Your task to perform on an android device: turn on notifications settings in the gmail app Image 0: 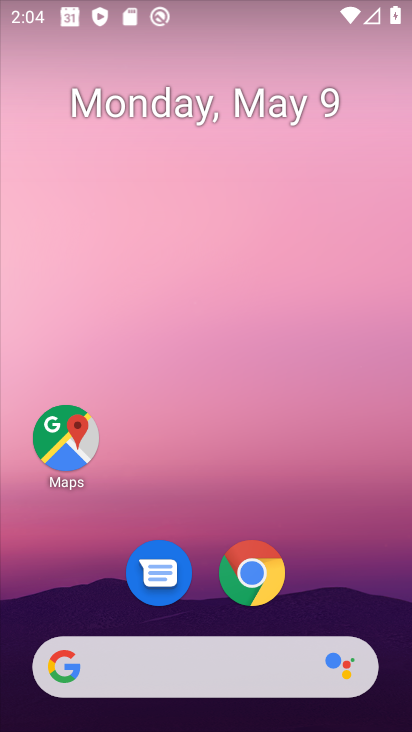
Step 0: drag from (321, 456) to (183, 0)
Your task to perform on an android device: turn on notifications settings in the gmail app Image 1: 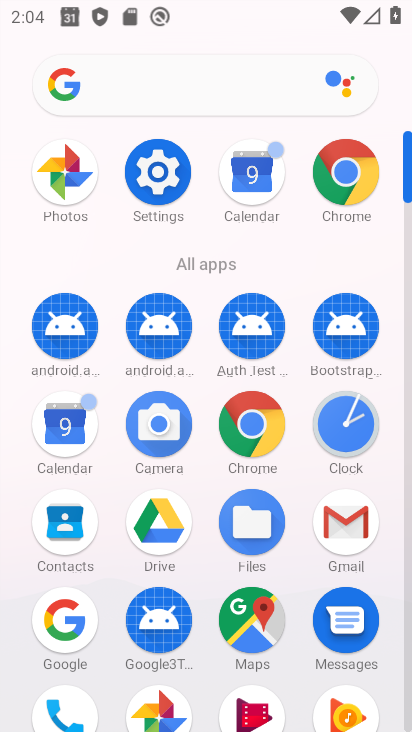
Step 1: click (341, 523)
Your task to perform on an android device: turn on notifications settings in the gmail app Image 2: 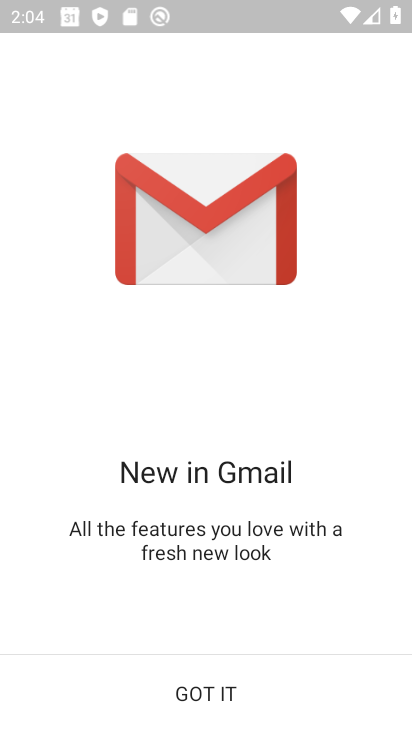
Step 2: click (221, 693)
Your task to perform on an android device: turn on notifications settings in the gmail app Image 3: 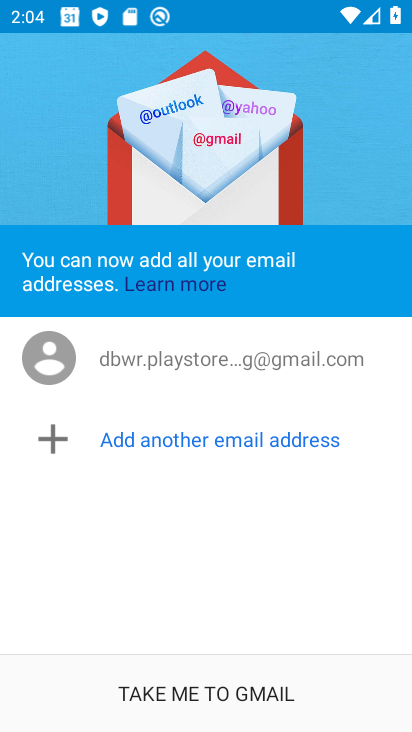
Step 3: click (235, 686)
Your task to perform on an android device: turn on notifications settings in the gmail app Image 4: 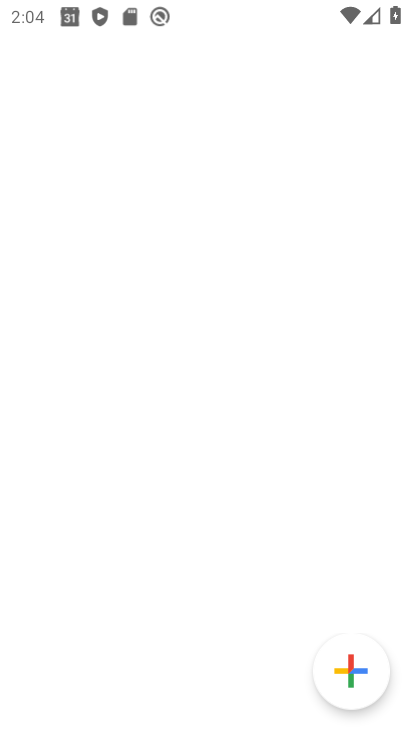
Step 4: click (235, 686)
Your task to perform on an android device: turn on notifications settings in the gmail app Image 5: 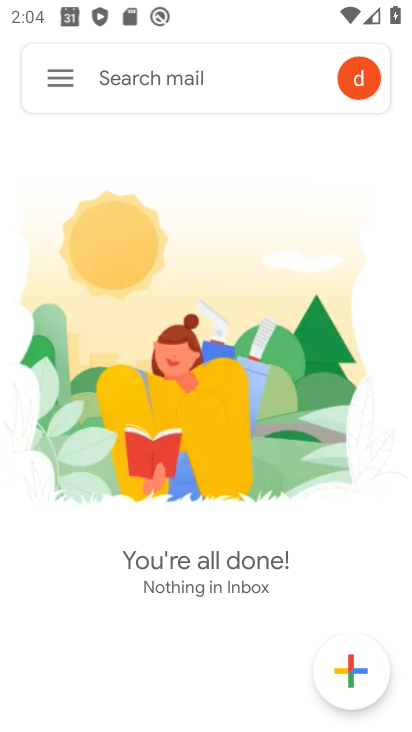
Step 5: click (54, 83)
Your task to perform on an android device: turn on notifications settings in the gmail app Image 6: 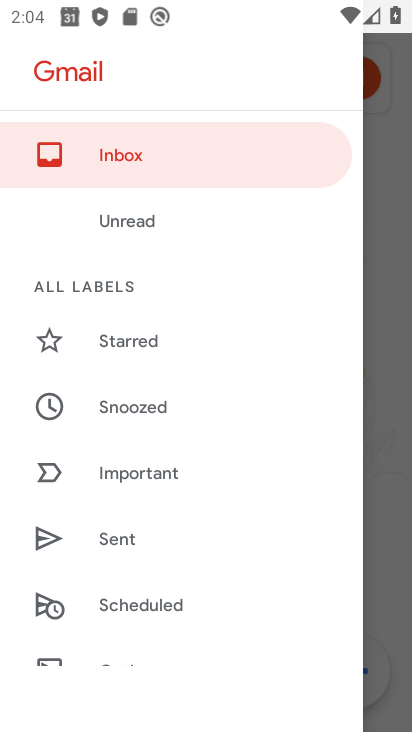
Step 6: drag from (165, 540) to (147, 168)
Your task to perform on an android device: turn on notifications settings in the gmail app Image 7: 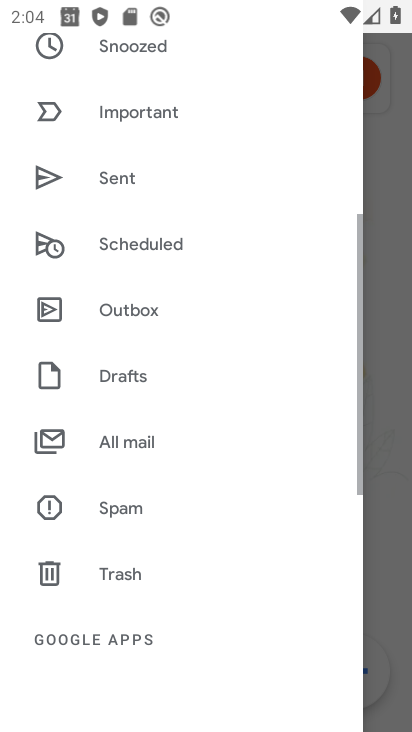
Step 7: drag from (225, 501) to (159, 106)
Your task to perform on an android device: turn on notifications settings in the gmail app Image 8: 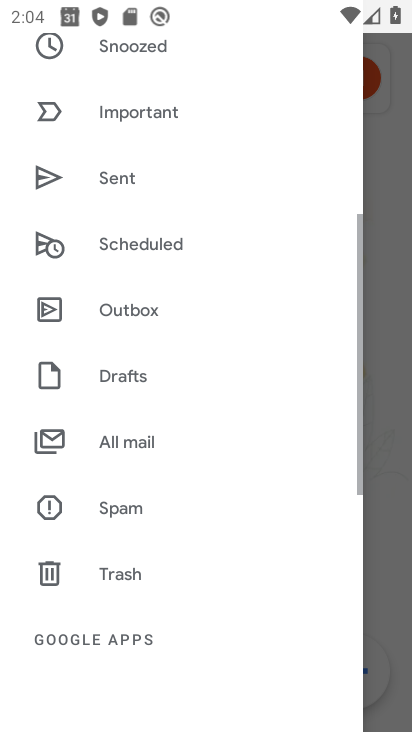
Step 8: drag from (186, 605) to (124, 16)
Your task to perform on an android device: turn on notifications settings in the gmail app Image 9: 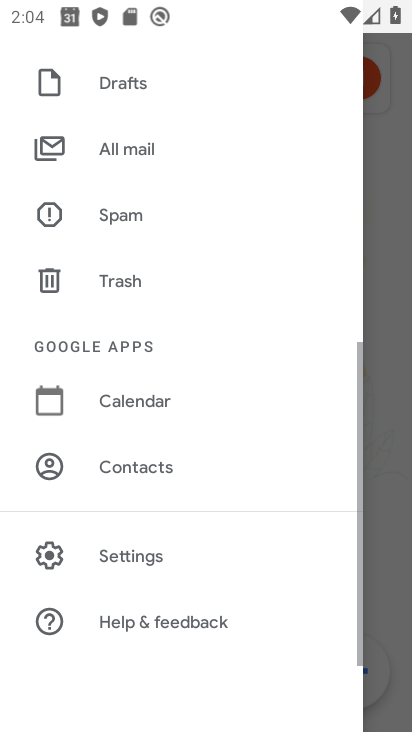
Step 9: click (133, 547)
Your task to perform on an android device: turn on notifications settings in the gmail app Image 10: 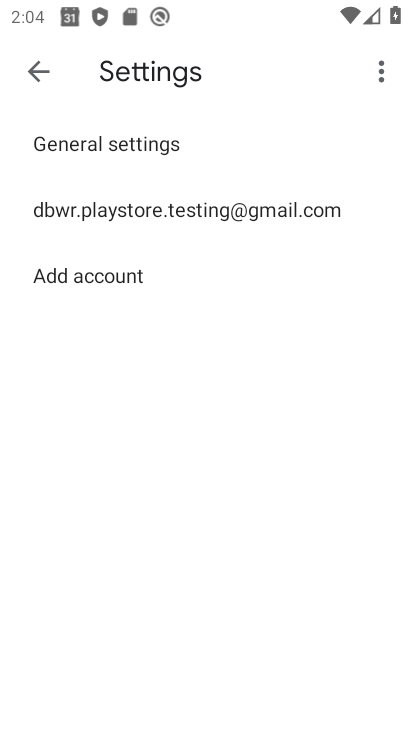
Step 10: click (152, 212)
Your task to perform on an android device: turn on notifications settings in the gmail app Image 11: 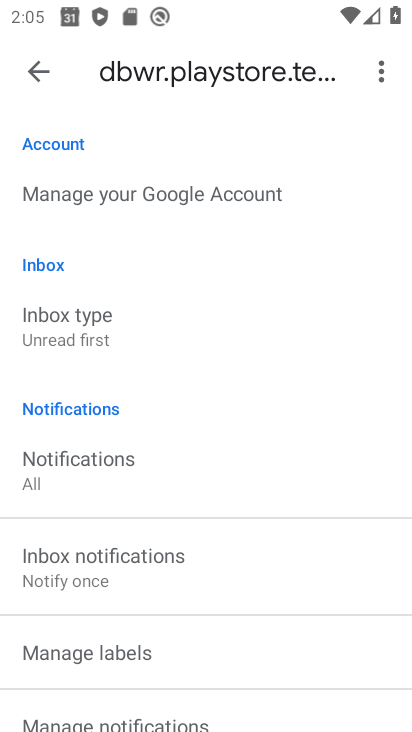
Step 11: click (42, 443)
Your task to perform on an android device: turn on notifications settings in the gmail app Image 12: 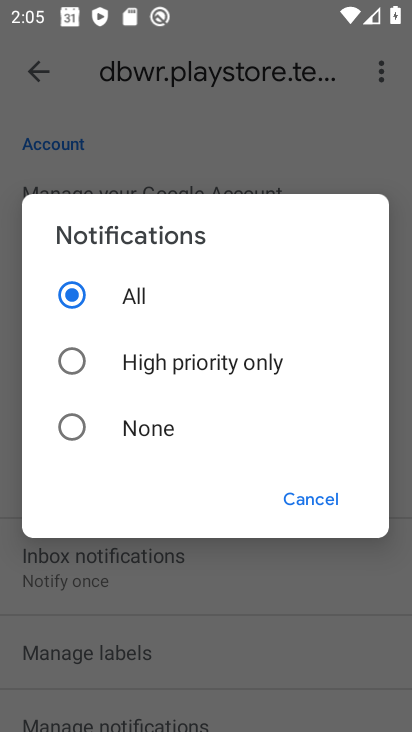
Step 12: click (309, 485)
Your task to perform on an android device: turn on notifications settings in the gmail app Image 13: 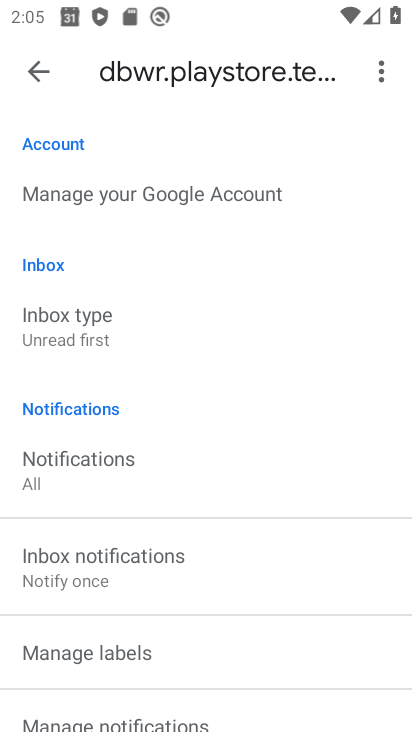
Step 13: task complete